Your task to perform on an android device: turn on the 12-hour format for clock Image 0: 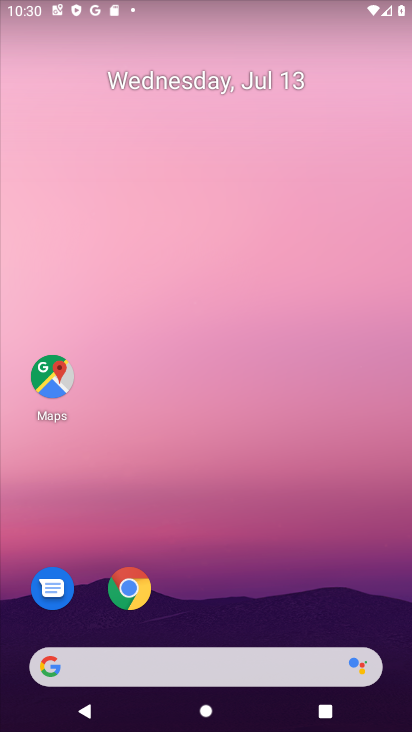
Step 0: drag from (236, 592) to (232, 68)
Your task to perform on an android device: turn on the 12-hour format for clock Image 1: 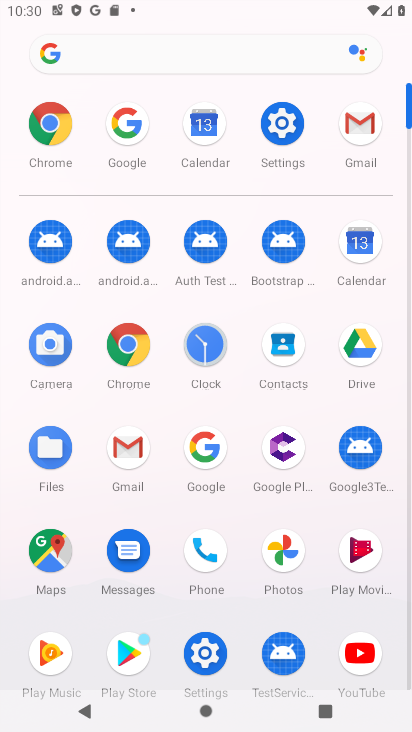
Step 1: click (205, 339)
Your task to perform on an android device: turn on the 12-hour format for clock Image 2: 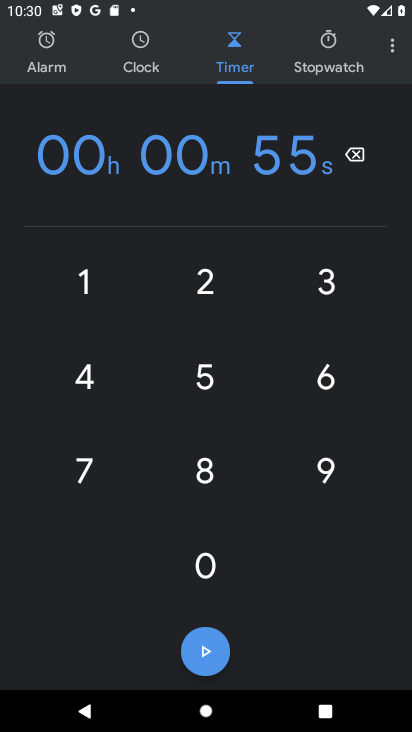
Step 2: click (390, 41)
Your task to perform on an android device: turn on the 12-hour format for clock Image 3: 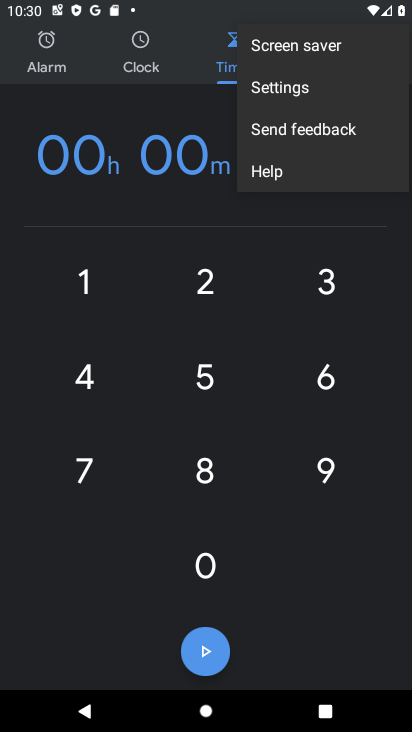
Step 3: click (269, 91)
Your task to perform on an android device: turn on the 12-hour format for clock Image 4: 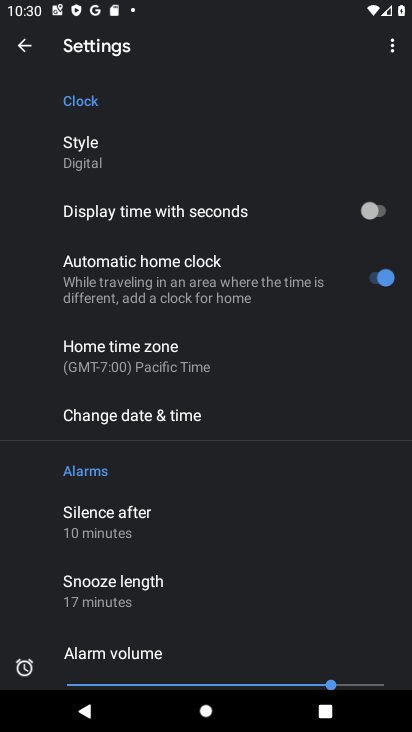
Step 4: click (160, 418)
Your task to perform on an android device: turn on the 12-hour format for clock Image 5: 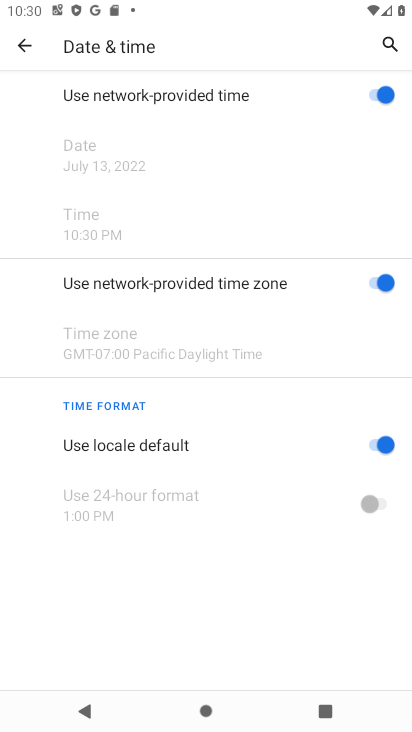
Step 5: task complete